Your task to perform on an android device: turn on airplane mode Image 0: 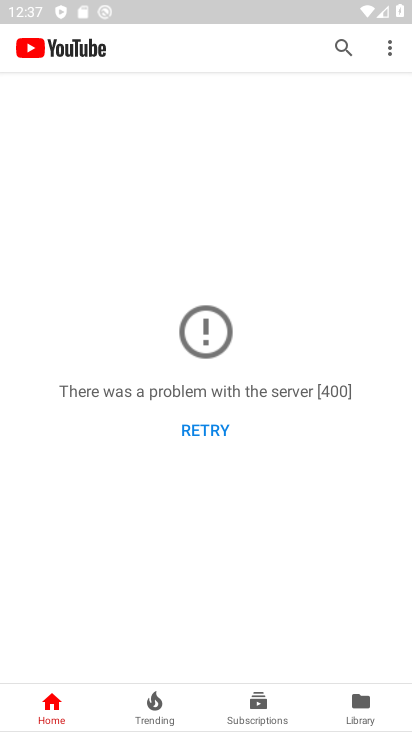
Step 0: press home button
Your task to perform on an android device: turn on airplane mode Image 1: 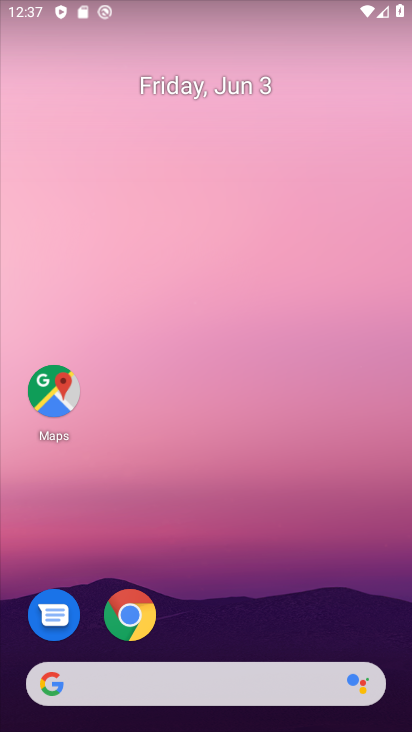
Step 1: drag from (214, 567) to (281, 13)
Your task to perform on an android device: turn on airplane mode Image 2: 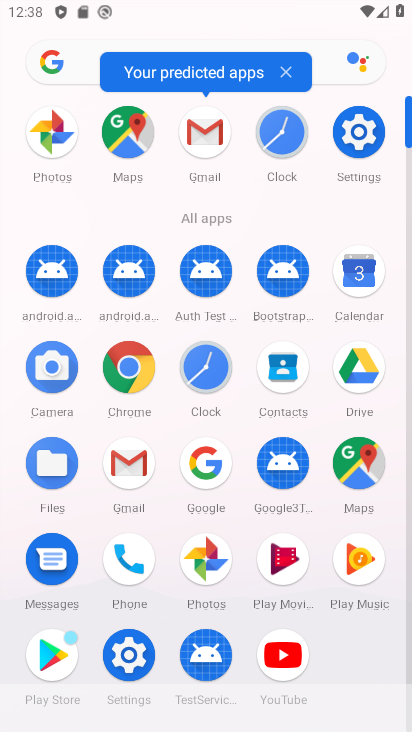
Step 2: click (131, 650)
Your task to perform on an android device: turn on airplane mode Image 3: 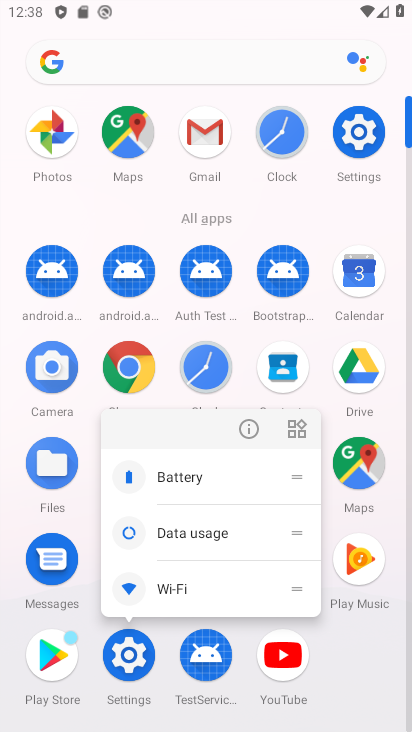
Step 3: click (373, 140)
Your task to perform on an android device: turn on airplane mode Image 4: 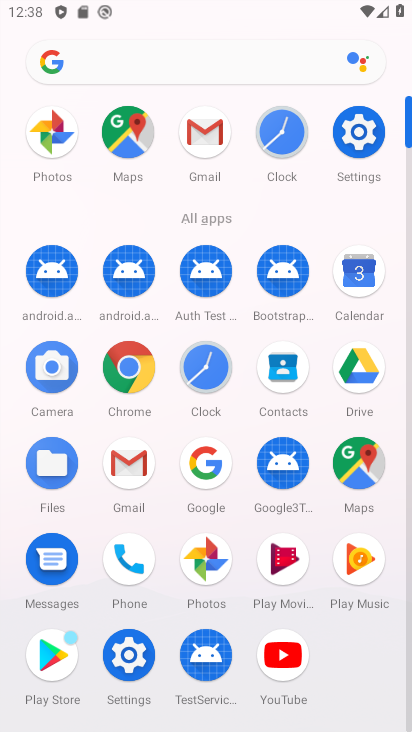
Step 4: click (362, 143)
Your task to perform on an android device: turn on airplane mode Image 5: 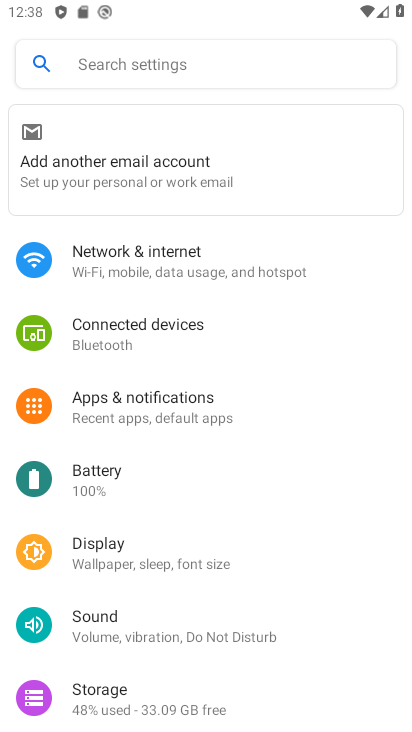
Step 5: click (168, 270)
Your task to perform on an android device: turn on airplane mode Image 6: 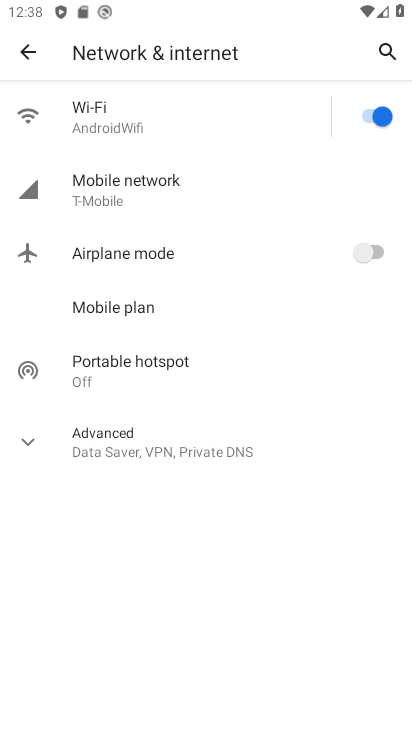
Step 6: click (334, 257)
Your task to perform on an android device: turn on airplane mode Image 7: 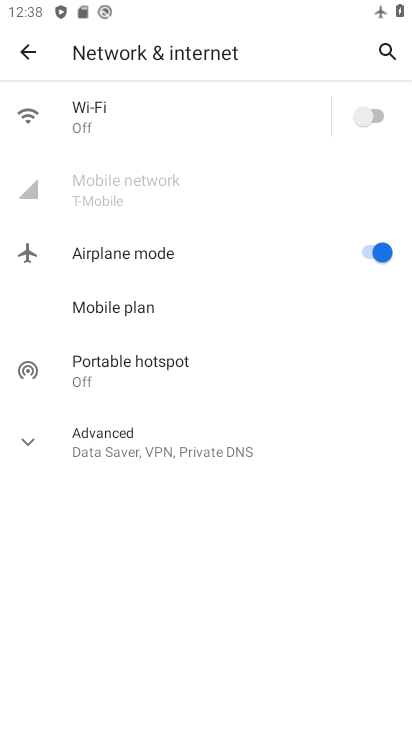
Step 7: task complete